Your task to perform on an android device: see creations saved in the google photos Image 0: 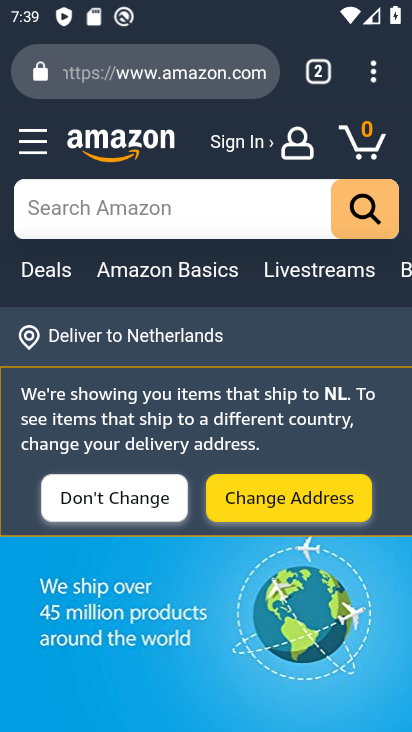
Step 0: press home button
Your task to perform on an android device: see creations saved in the google photos Image 1: 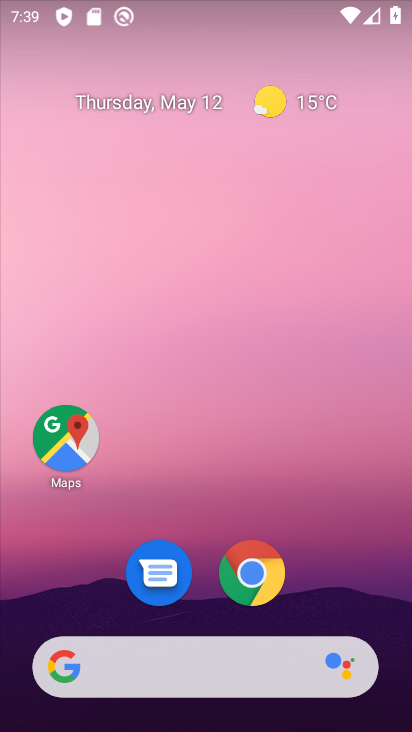
Step 1: drag from (319, 516) to (215, 0)
Your task to perform on an android device: see creations saved in the google photos Image 2: 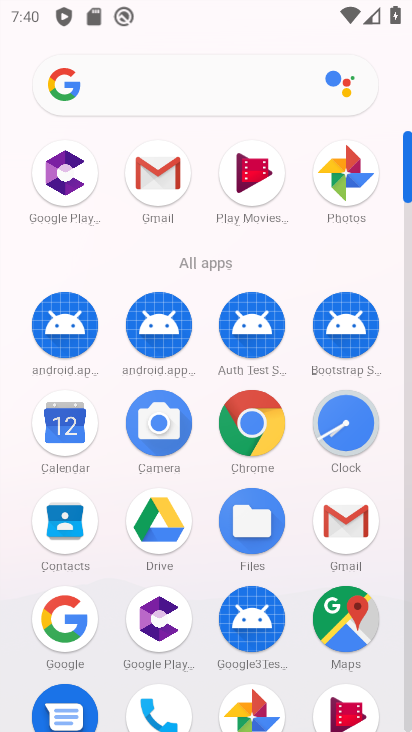
Step 2: click (252, 704)
Your task to perform on an android device: see creations saved in the google photos Image 3: 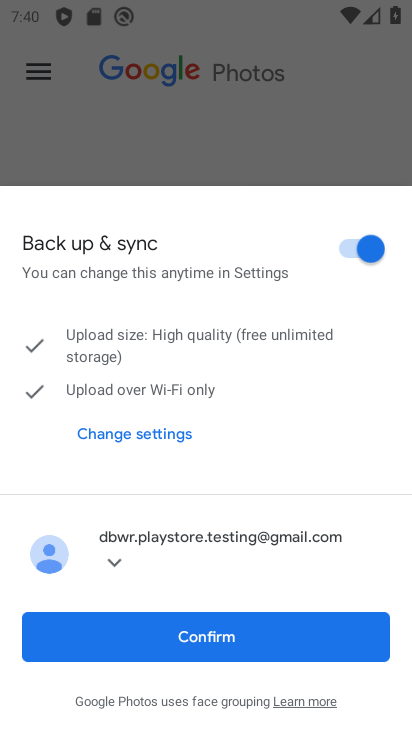
Step 3: click (195, 635)
Your task to perform on an android device: see creations saved in the google photos Image 4: 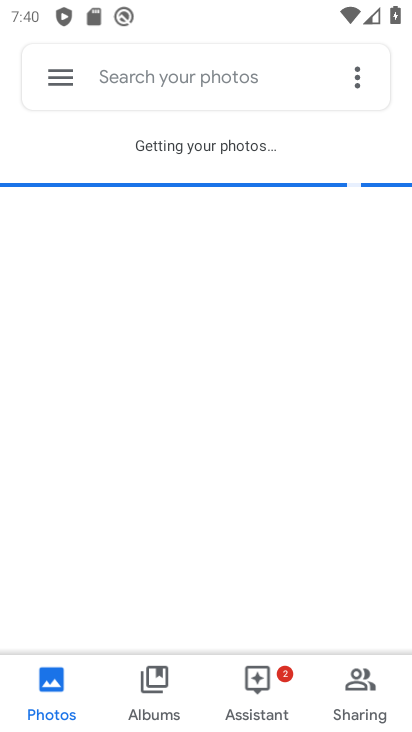
Step 4: click (146, 74)
Your task to perform on an android device: see creations saved in the google photos Image 5: 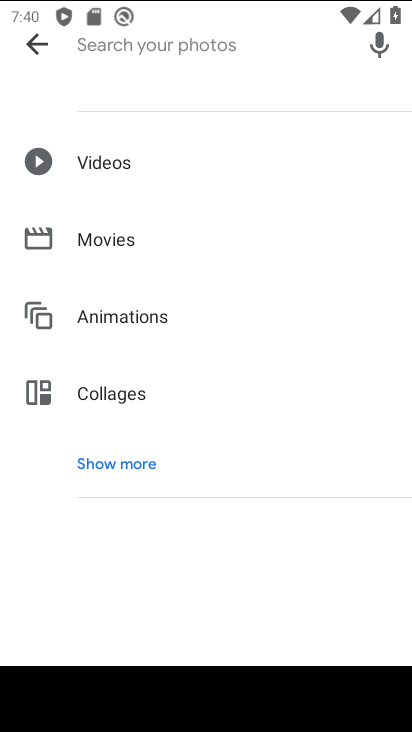
Step 5: click (110, 462)
Your task to perform on an android device: see creations saved in the google photos Image 6: 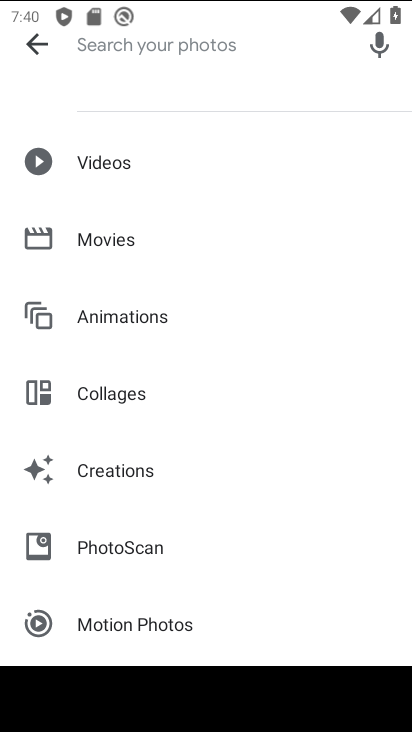
Step 6: click (112, 456)
Your task to perform on an android device: see creations saved in the google photos Image 7: 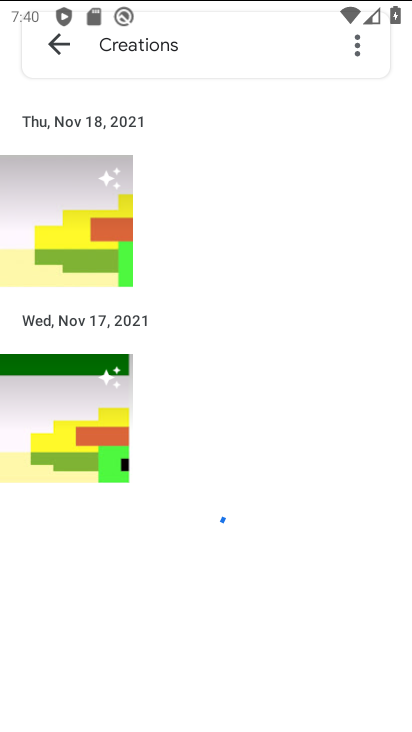
Step 7: task complete